Your task to perform on an android device: What's the weather going to be tomorrow? Image 0: 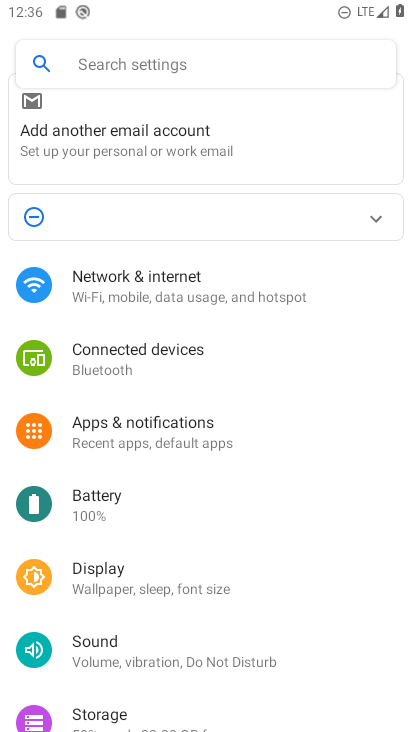
Step 0: press home button
Your task to perform on an android device: What's the weather going to be tomorrow? Image 1: 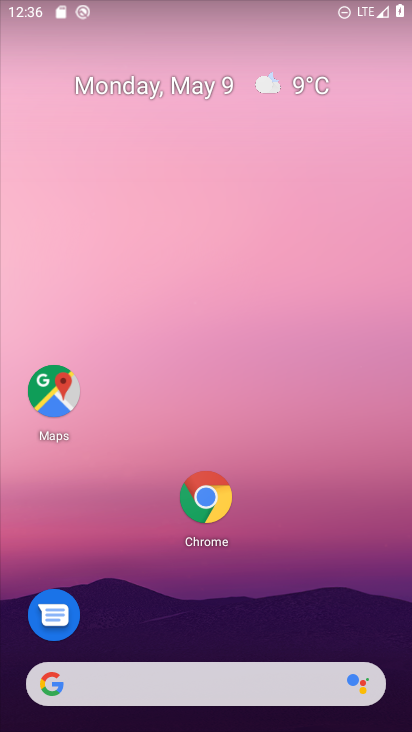
Step 1: click (309, 87)
Your task to perform on an android device: What's the weather going to be tomorrow? Image 2: 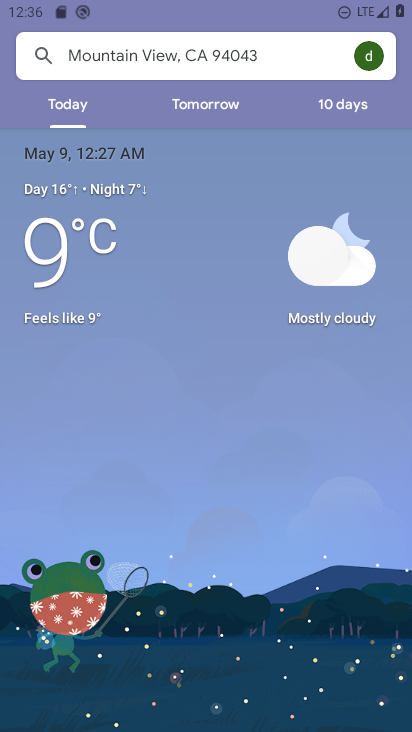
Step 2: click (228, 112)
Your task to perform on an android device: What's the weather going to be tomorrow? Image 3: 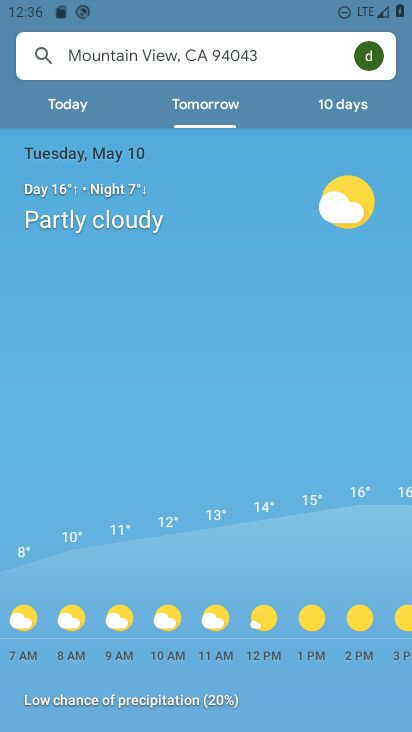
Step 3: task complete